Your task to perform on an android device: Open the calendar app, open the side menu, and click the "Day" option Image 0: 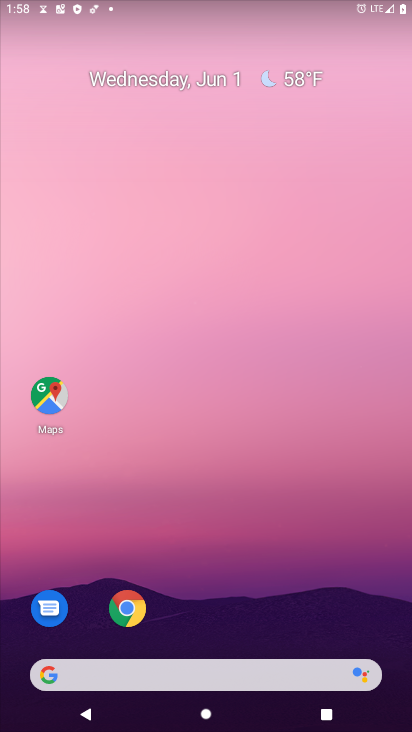
Step 0: drag from (270, 584) to (332, 231)
Your task to perform on an android device: Open the calendar app, open the side menu, and click the "Day" option Image 1: 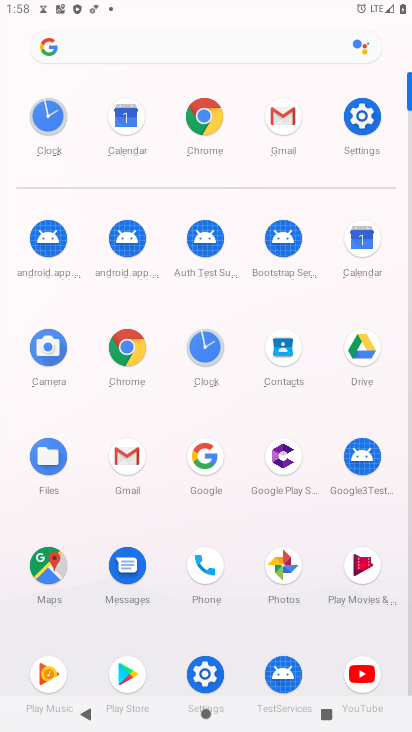
Step 1: click (356, 234)
Your task to perform on an android device: Open the calendar app, open the side menu, and click the "Day" option Image 2: 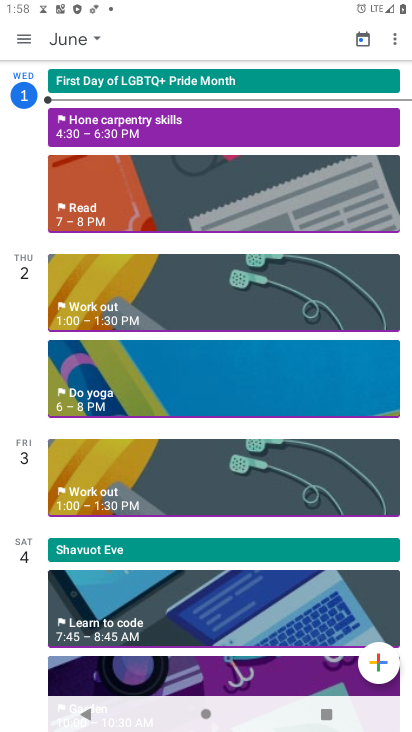
Step 2: click (33, 32)
Your task to perform on an android device: Open the calendar app, open the side menu, and click the "Day" option Image 3: 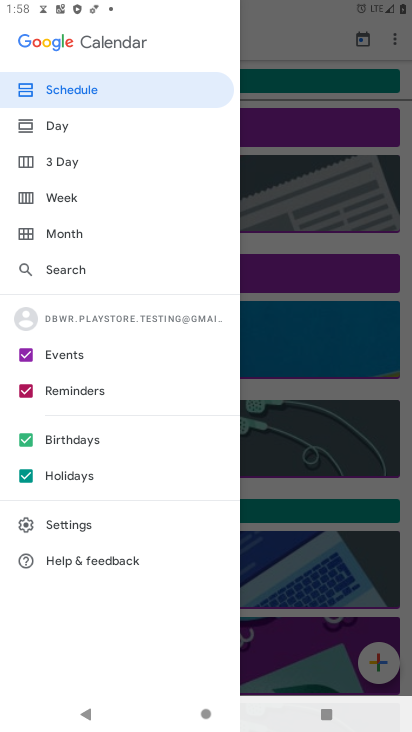
Step 3: click (77, 125)
Your task to perform on an android device: Open the calendar app, open the side menu, and click the "Day" option Image 4: 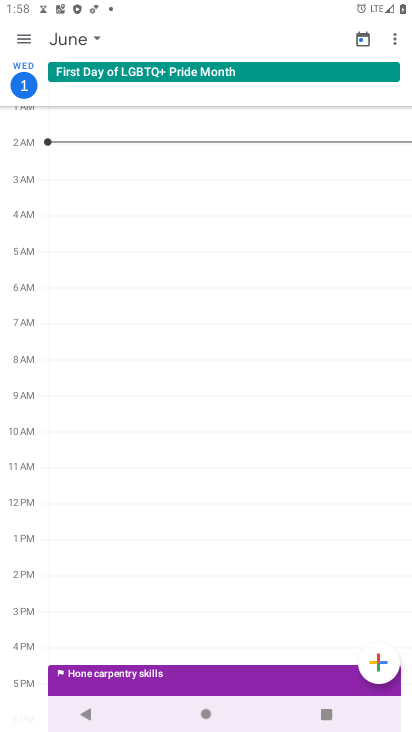
Step 4: task complete